Your task to perform on an android device: What's on my calendar tomorrow? Image 0: 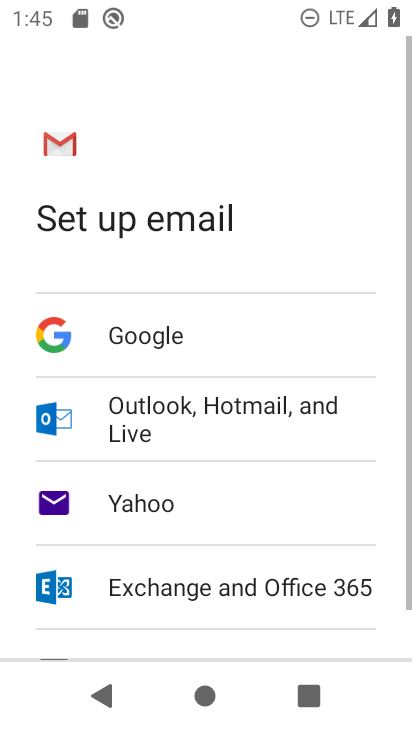
Step 0: press home button
Your task to perform on an android device: What's on my calendar tomorrow? Image 1: 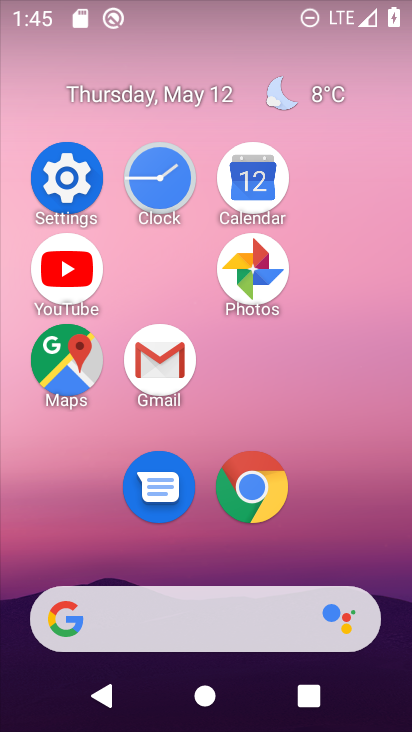
Step 1: click (247, 193)
Your task to perform on an android device: What's on my calendar tomorrow? Image 2: 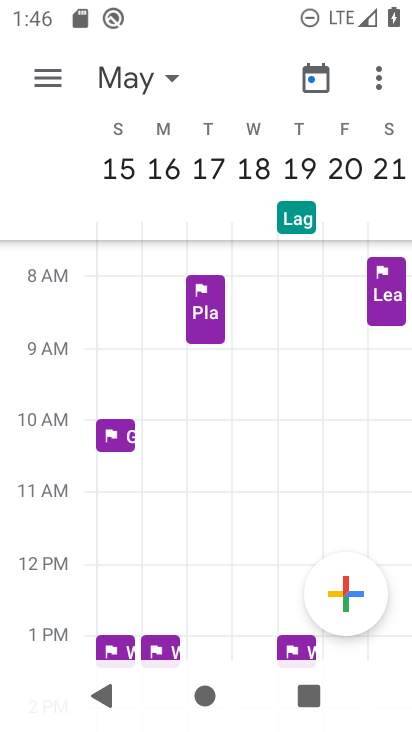
Step 2: click (48, 91)
Your task to perform on an android device: What's on my calendar tomorrow? Image 3: 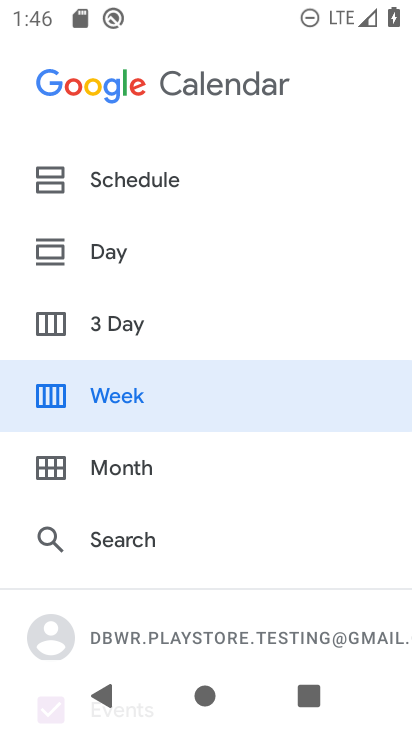
Step 3: click (142, 232)
Your task to perform on an android device: What's on my calendar tomorrow? Image 4: 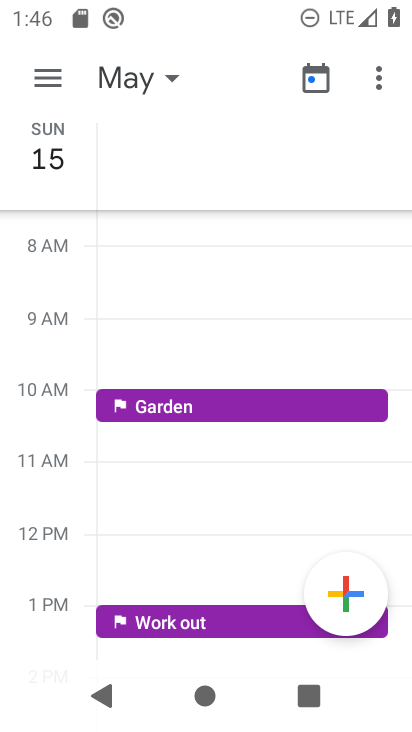
Step 4: task complete